Your task to perform on an android device: turn on showing notifications on the lock screen Image 0: 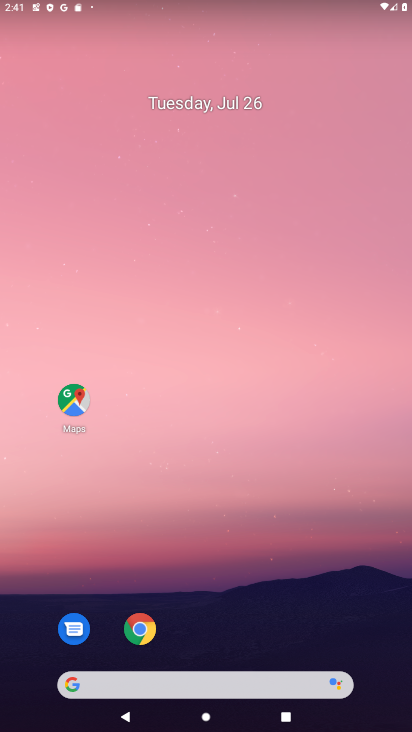
Step 0: drag from (212, 640) to (226, 123)
Your task to perform on an android device: turn on showing notifications on the lock screen Image 1: 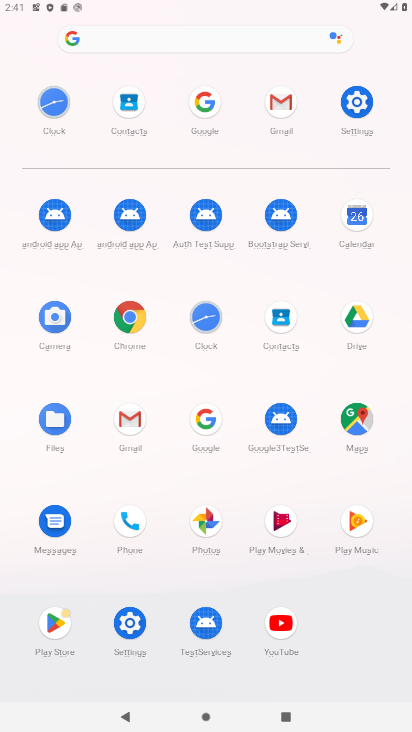
Step 1: click (359, 98)
Your task to perform on an android device: turn on showing notifications on the lock screen Image 2: 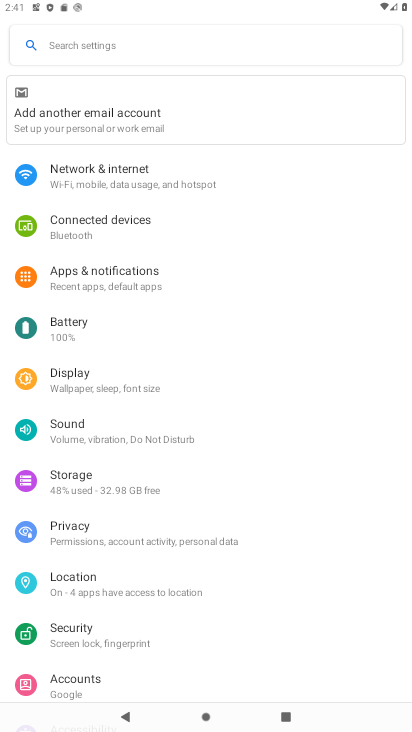
Step 2: click (221, 275)
Your task to perform on an android device: turn on showing notifications on the lock screen Image 3: 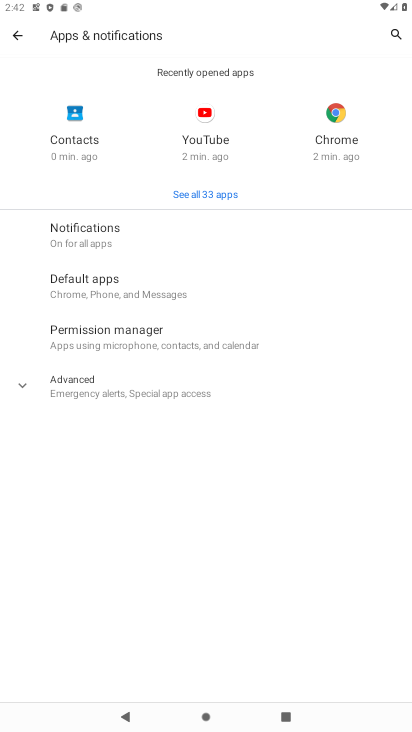
Step 3: click (124, 238)
Your task to perform on an android device: turn on showing notifications on the lock screen Image 4: 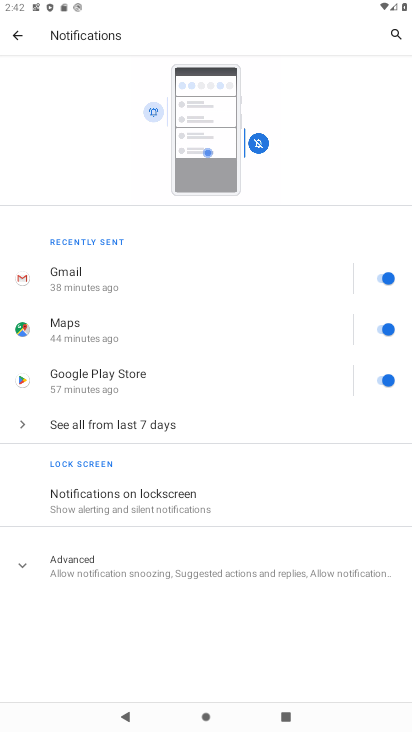
Step 4: click (181, 519)
Your task to perform on an android device: turn on showing notifications on the lock screen Image 5: 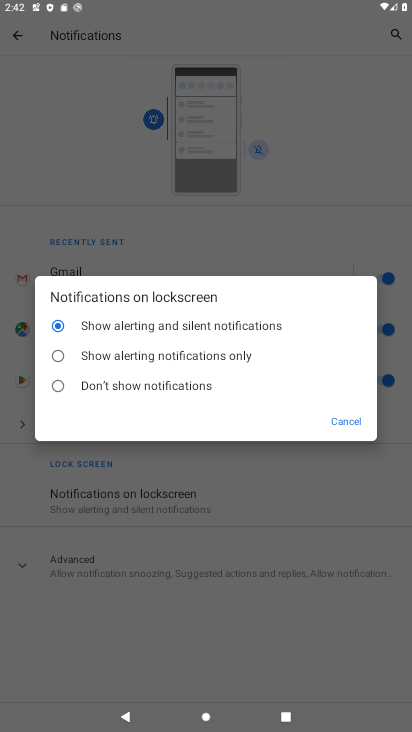
Step 5: task complete